Your task to perform on an android device: move a message to another label in the gmail app Image 0: 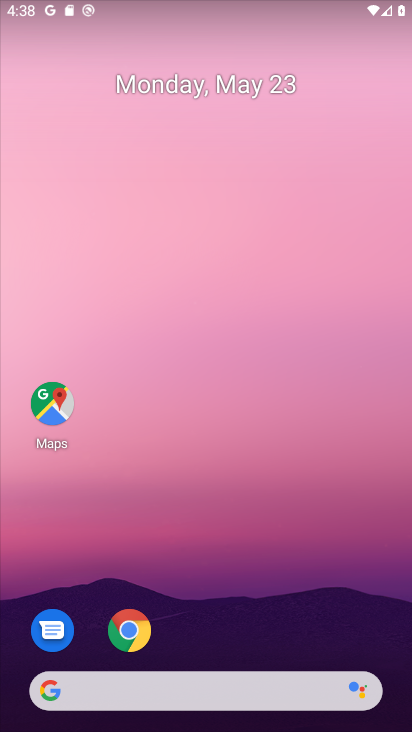
Step 0: drag from (221, 646) to (222, 111)
Your task to perform on an android device: move a message to another label in the gmail app Image 1: 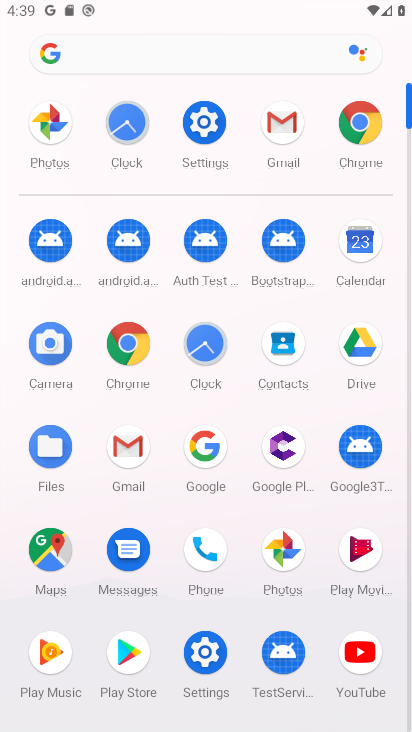
Step 1: click (121, 440)
Your task to perform on an android device: move a message to another label in the gmail app Image 2: 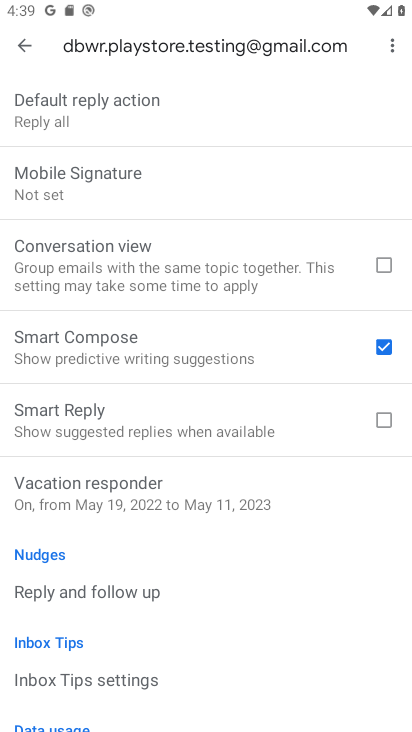
Step 2: task complete